Your task to perform on an android device: Search for the best selling phone on AliExpress Image 0: 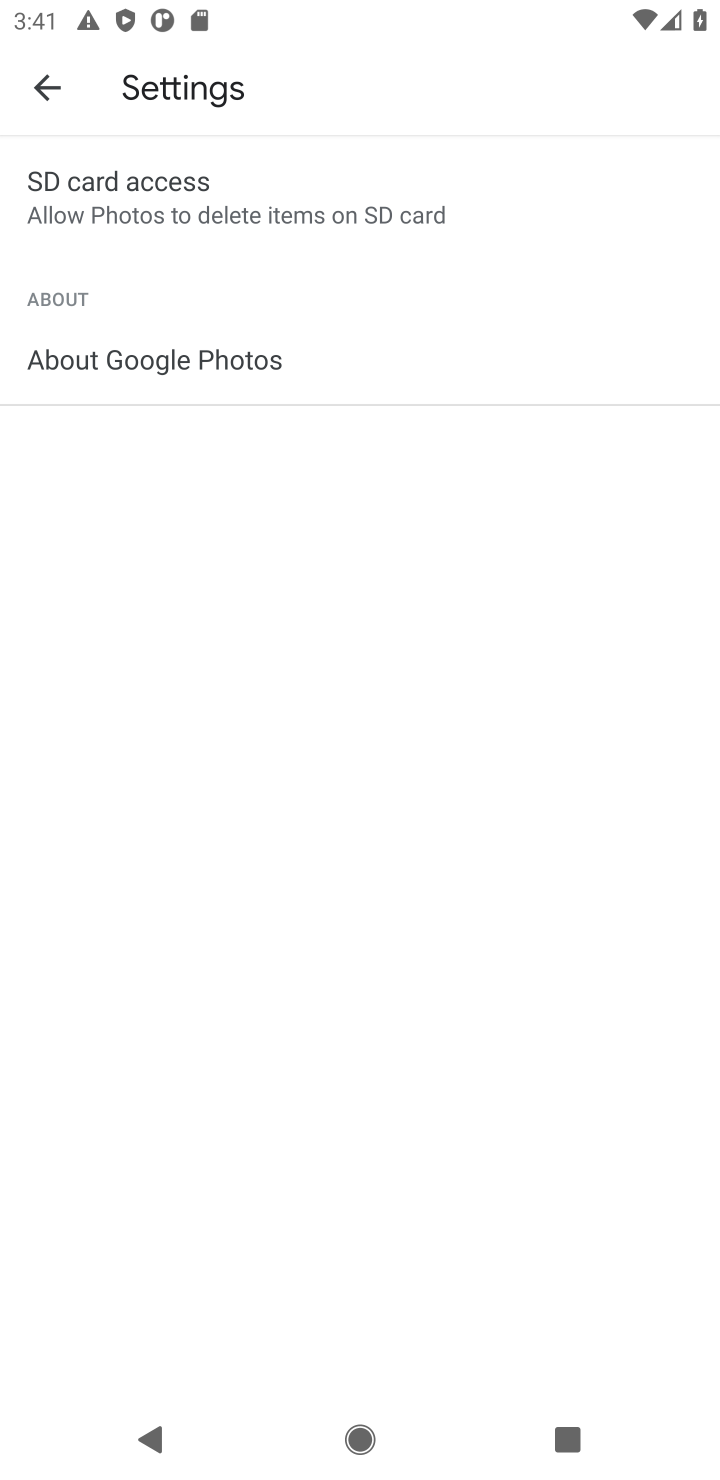
Step 0: press home button
Your task to perform on an android device: Search for the best selling phone on AliExpress Image 1: 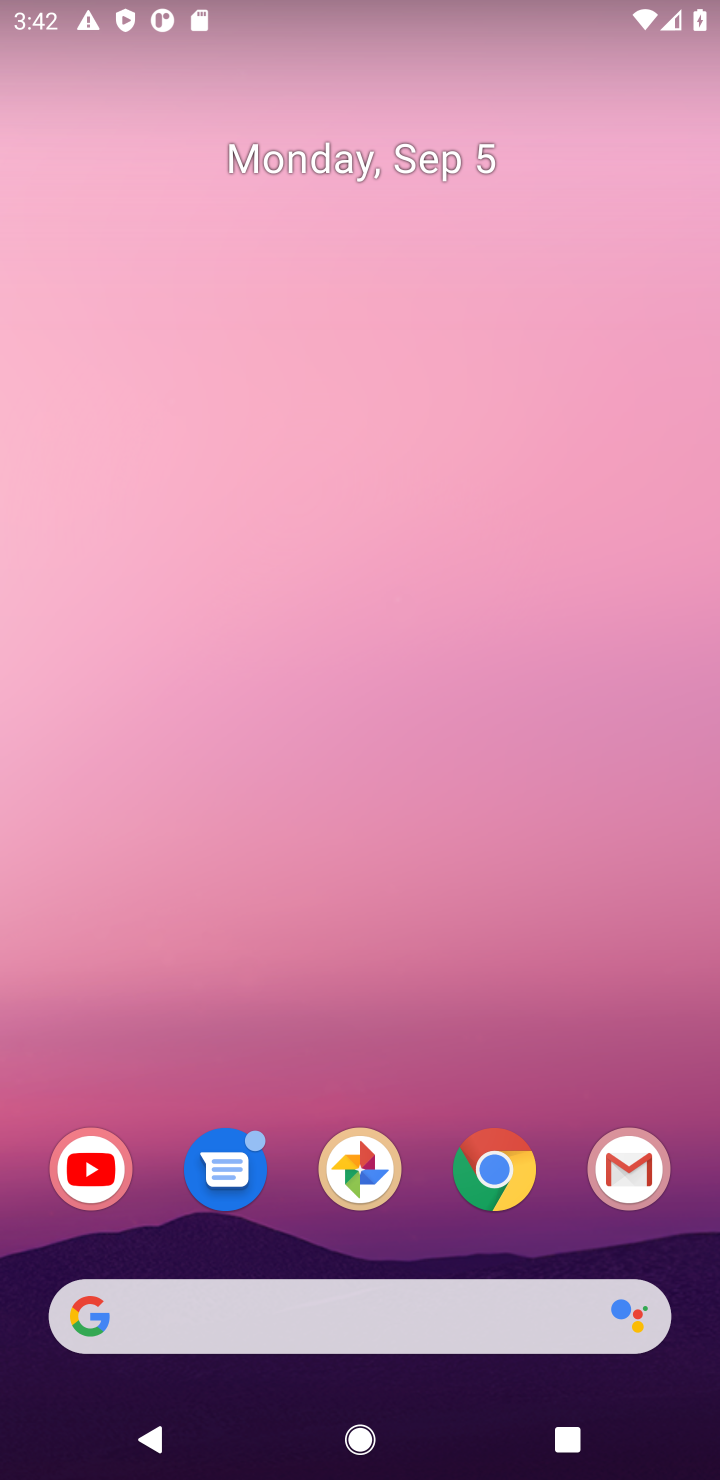
Step 1: click (497, 1170)
Your task to perform on an android device: Search for the best selling phone on AliExpress Image 2: 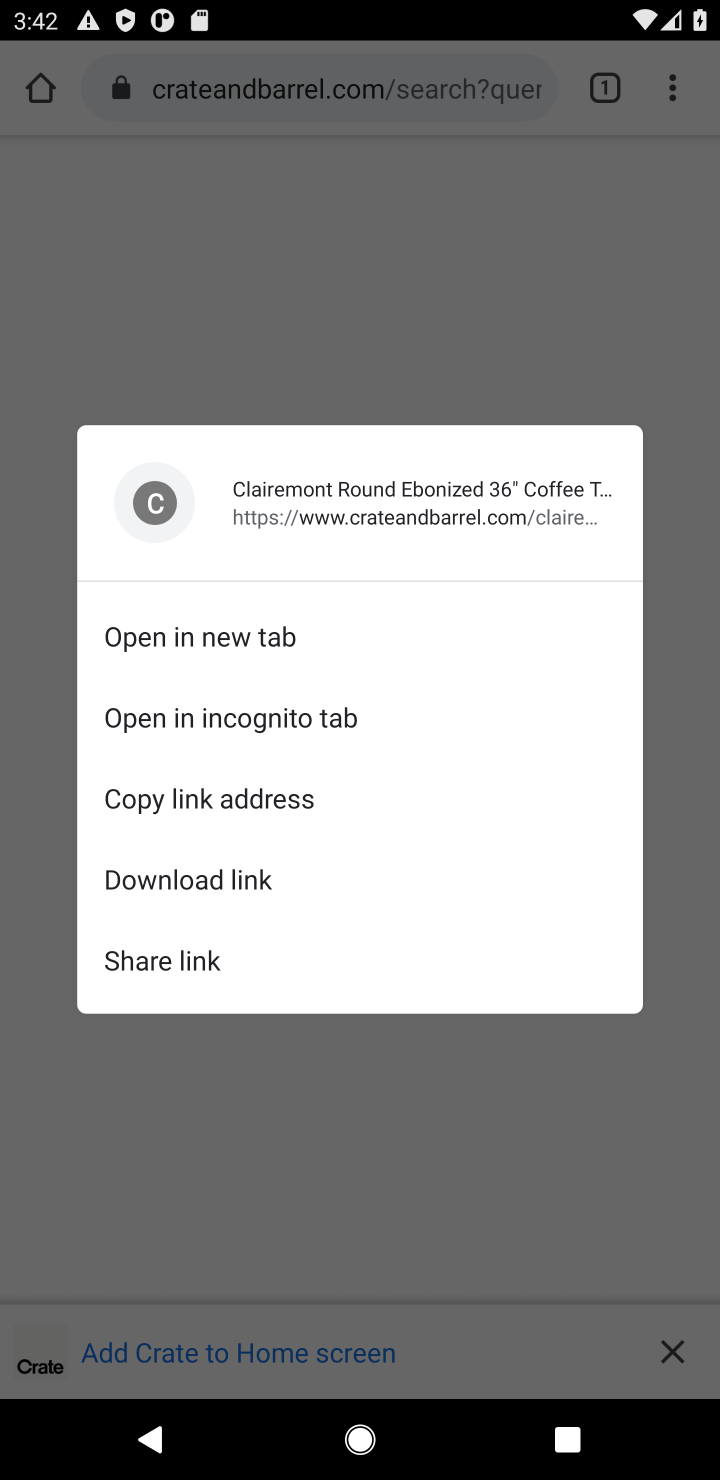
Step 2: click (272, 97)
Your task to perform on an android device: Search for the best selling phone on AliExpress Image 3: 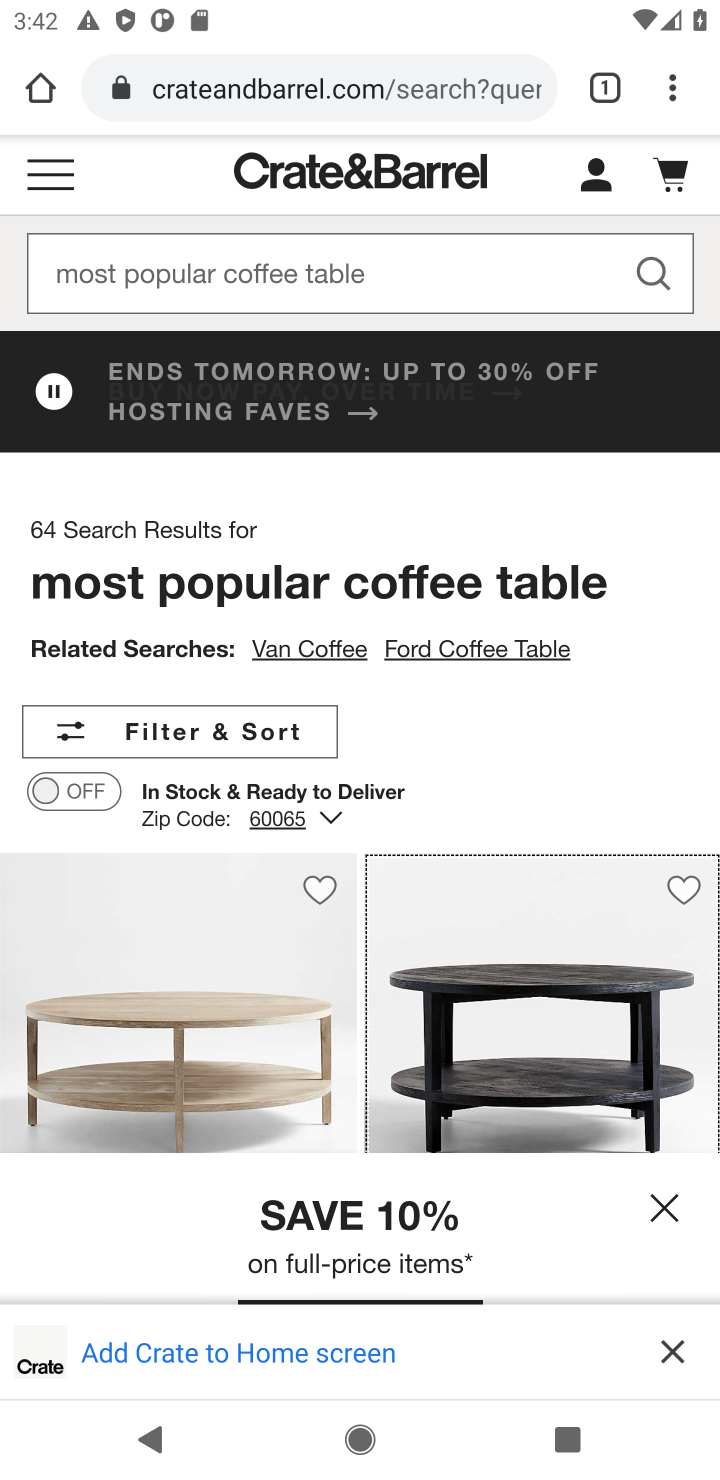
Step 3: click (316, 86)
Your task to perform on an android device: Search for the best selling phone on AliExpress Image 4: 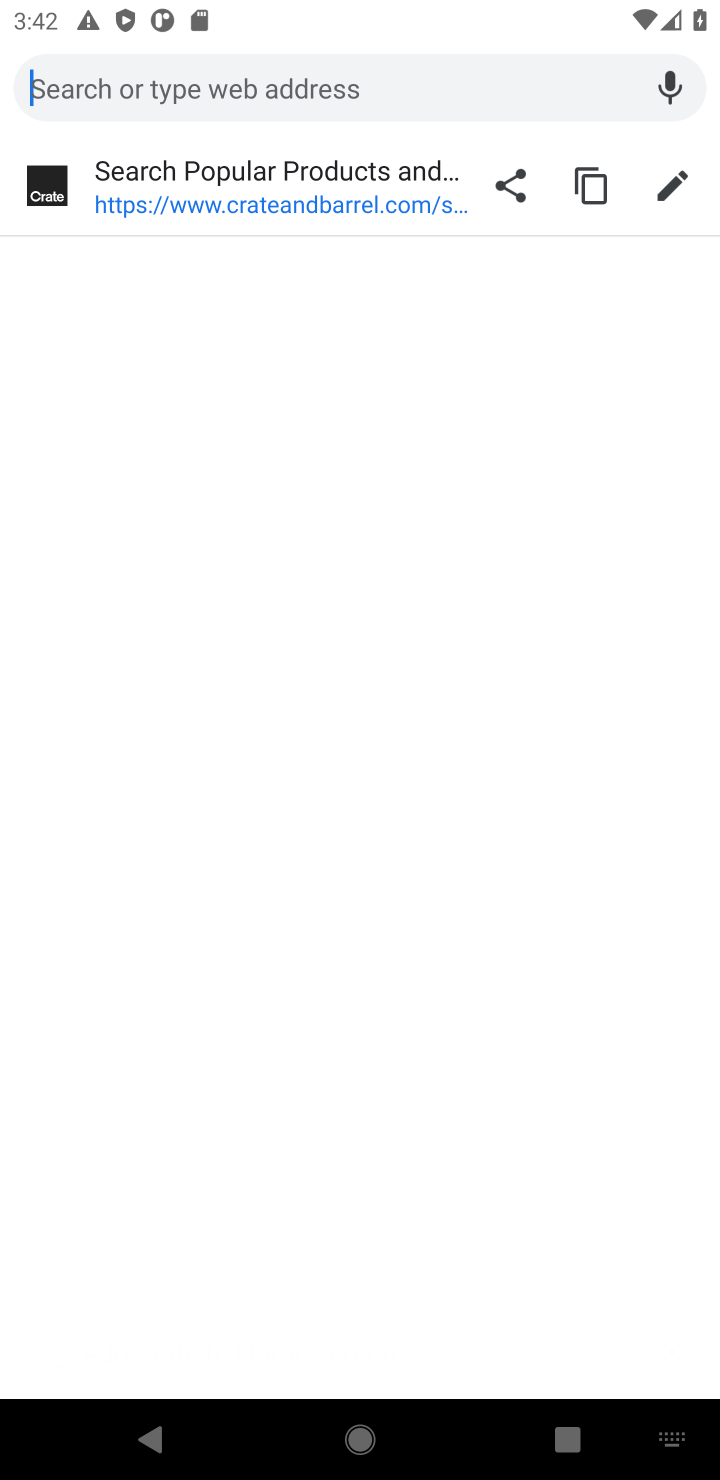
Step 4: type "AliExpress"
Your task to perform on an android device: Search for the best selling phone on AliExpress Image 5: 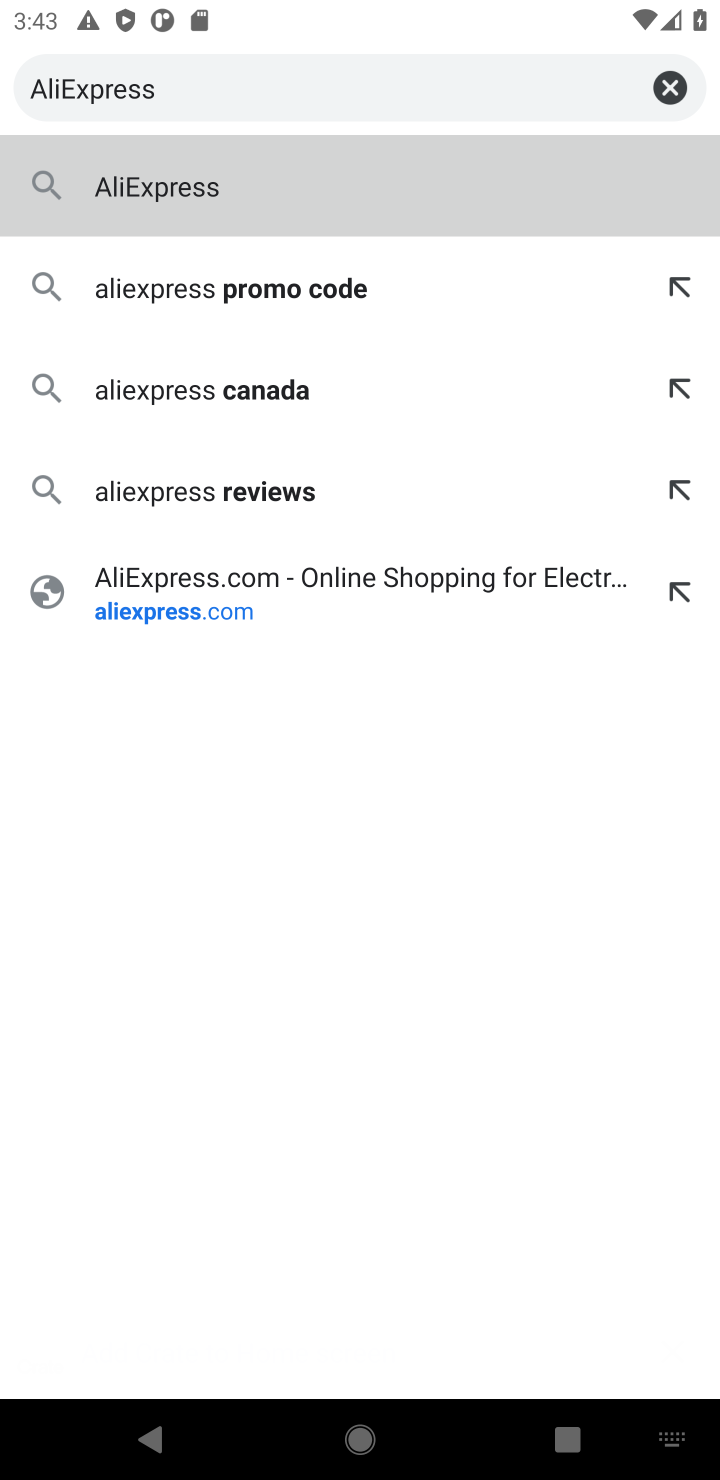
Step 5: click (158, 196)
Your task to perform on an android device: Search for the best selling phone on AliExpress Image 6: 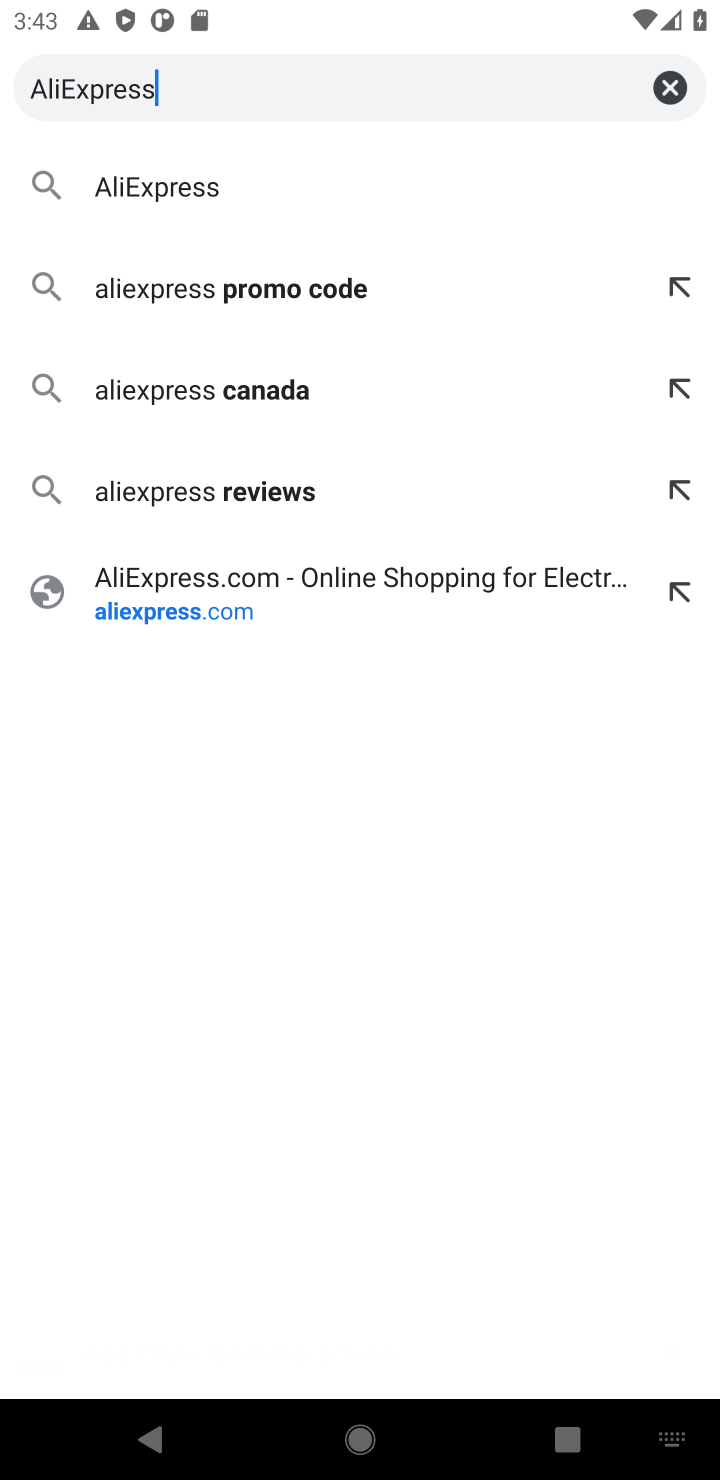
Step 6: click (159, 200)
Your task to perform on an android device: Search for the best selling phone on AliExpress Image 7: 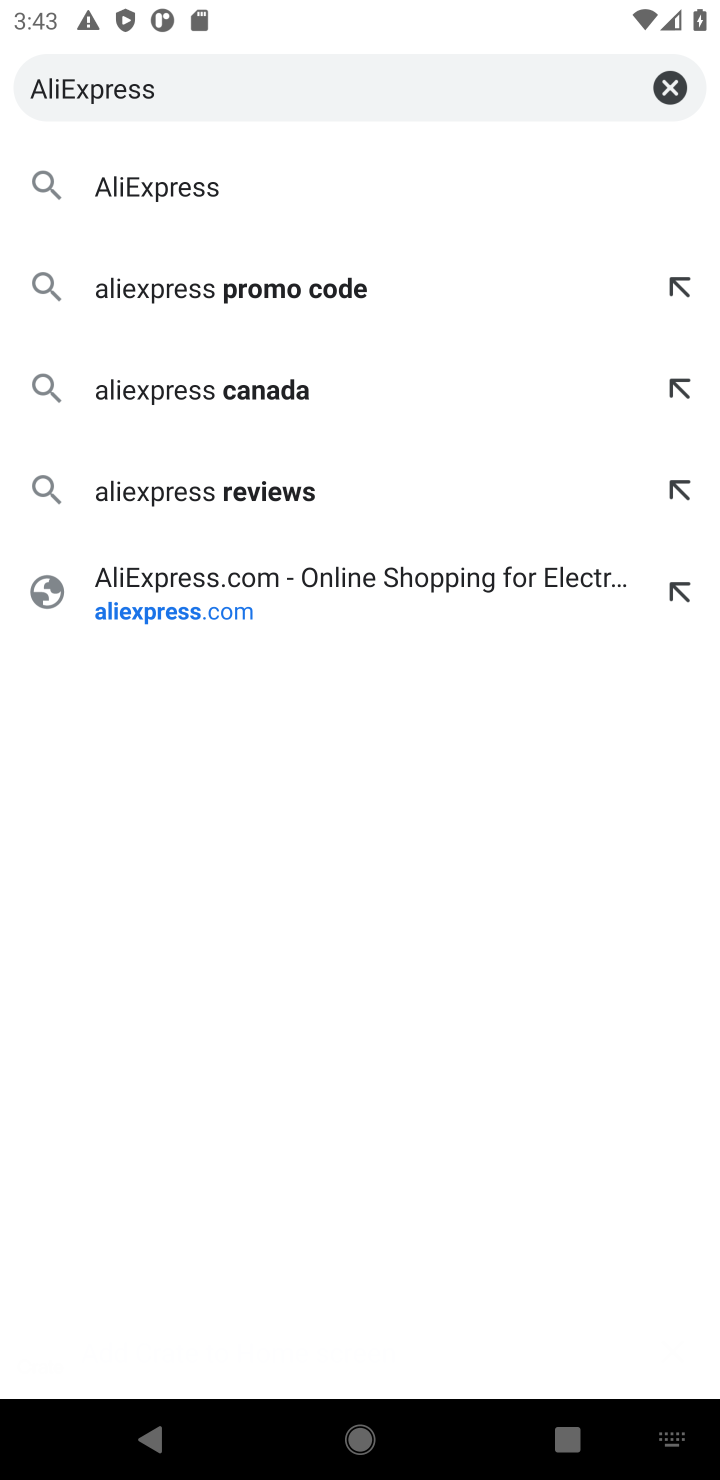
Step 7: click (147, 190)
Your task to perform on an android device: Search for the best selling phone on AliExpress Image 8: 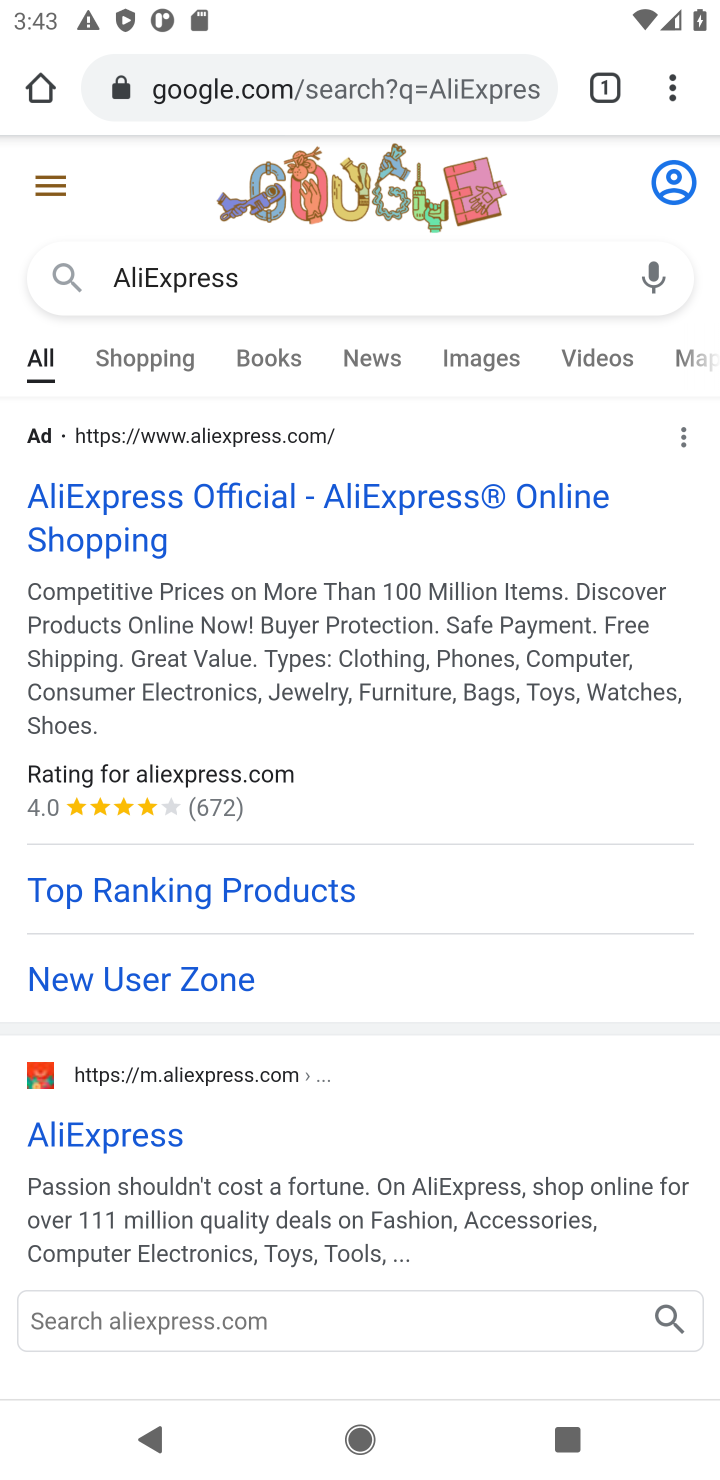
Step 8: click (116, 1142)
Your task to perform on an android device: Search for the best selling phone on AliExpress Image 9: 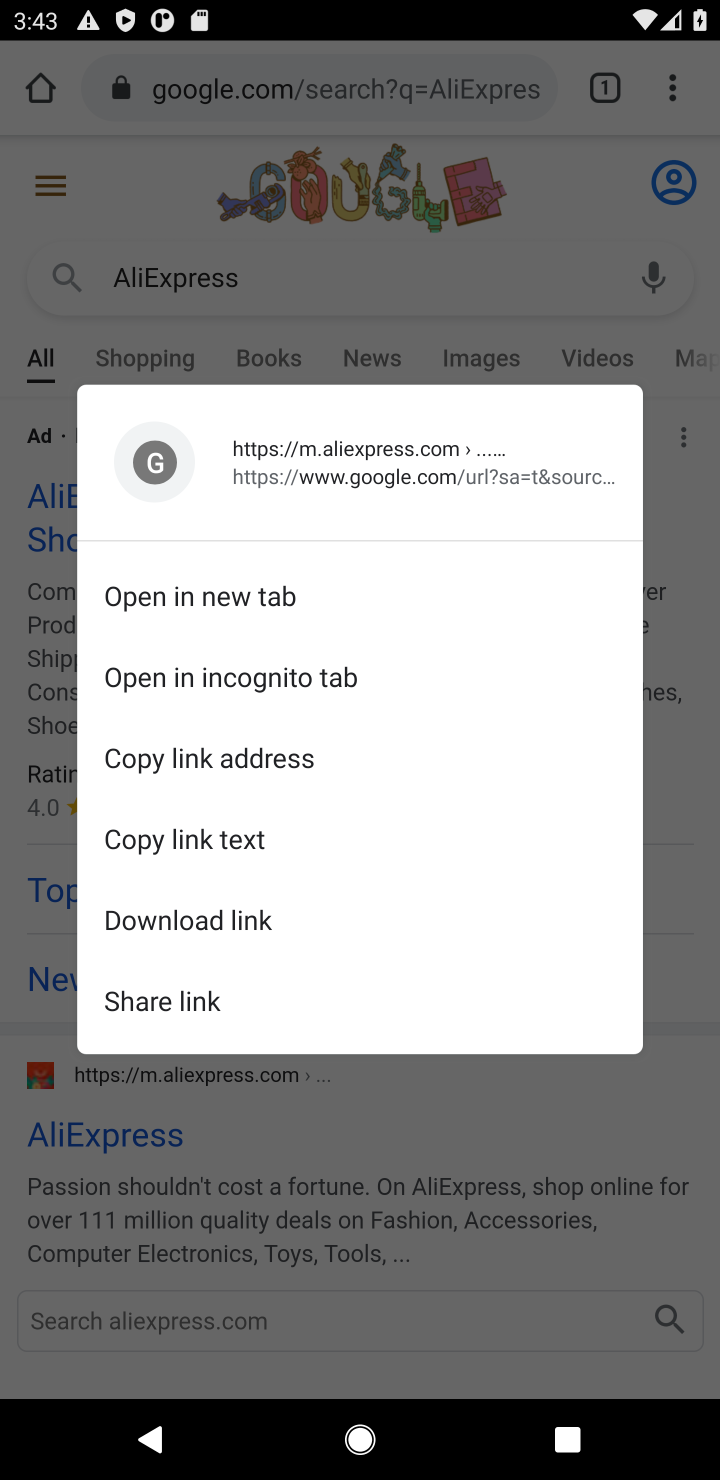
Step 9: click (114, 1154)
Your task to perform on an android device: Search for the best selling phone on AliExpress Image 10: 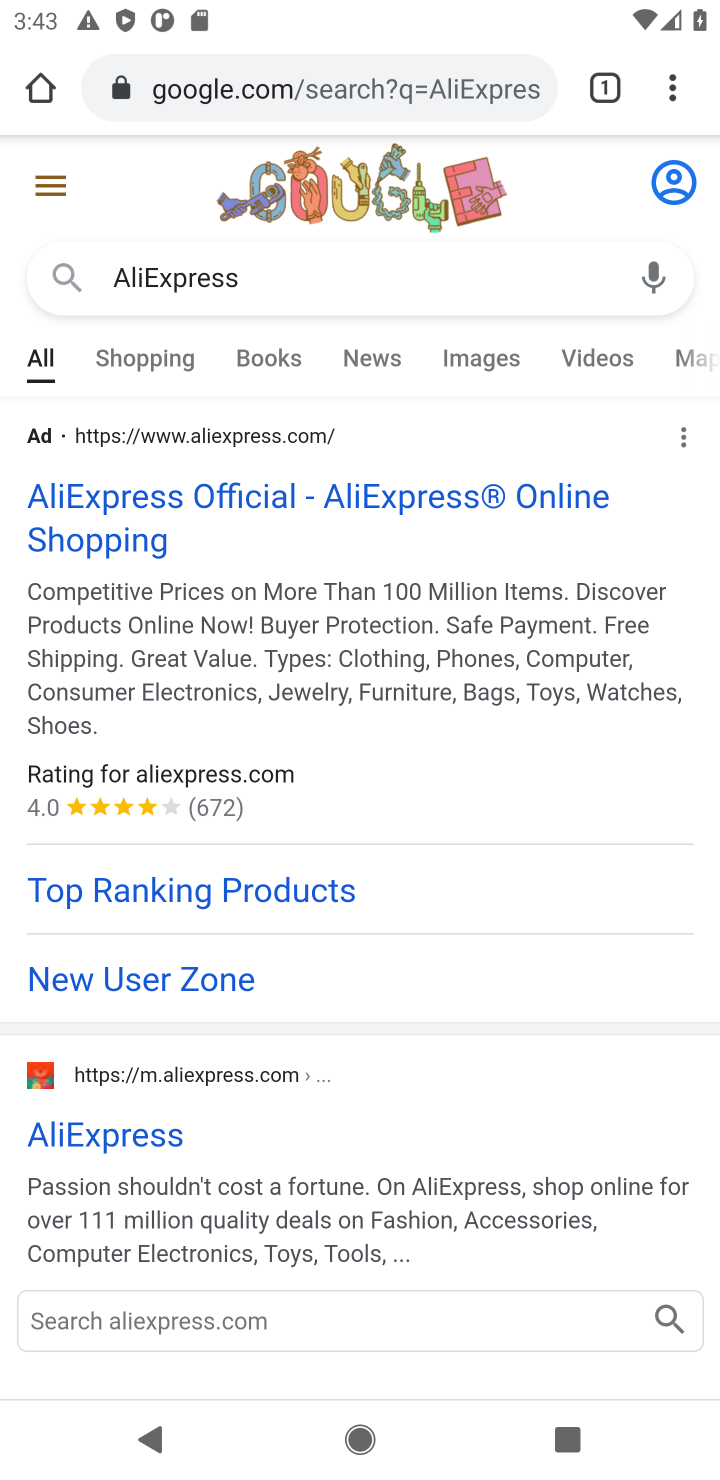
Step 10: click (151, 1139)
Your task to perform on an android device: Search for the best selling phone on AliExpress Image 11: 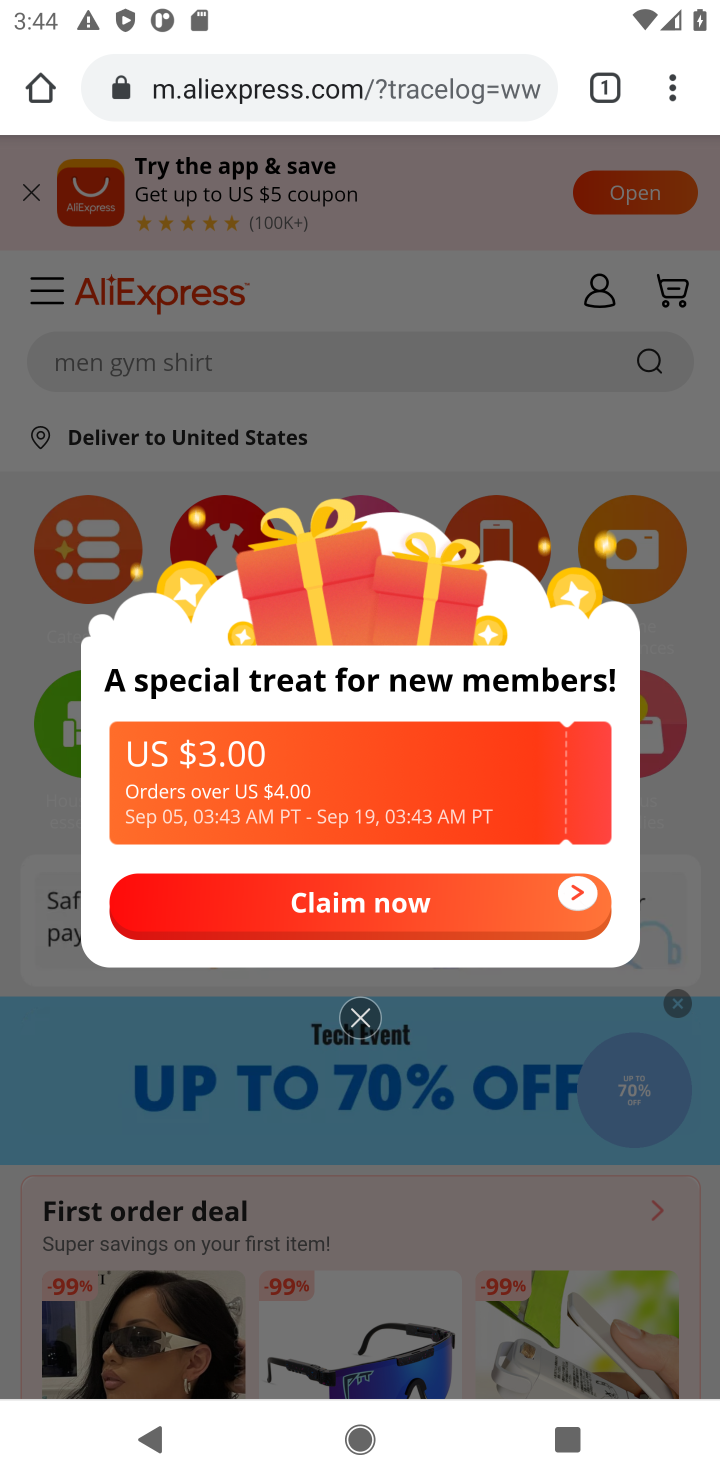
Step 11: click (352, 1030)
Your task to perform on an android device: Search for the best selling phone on AliExpress Image 12: 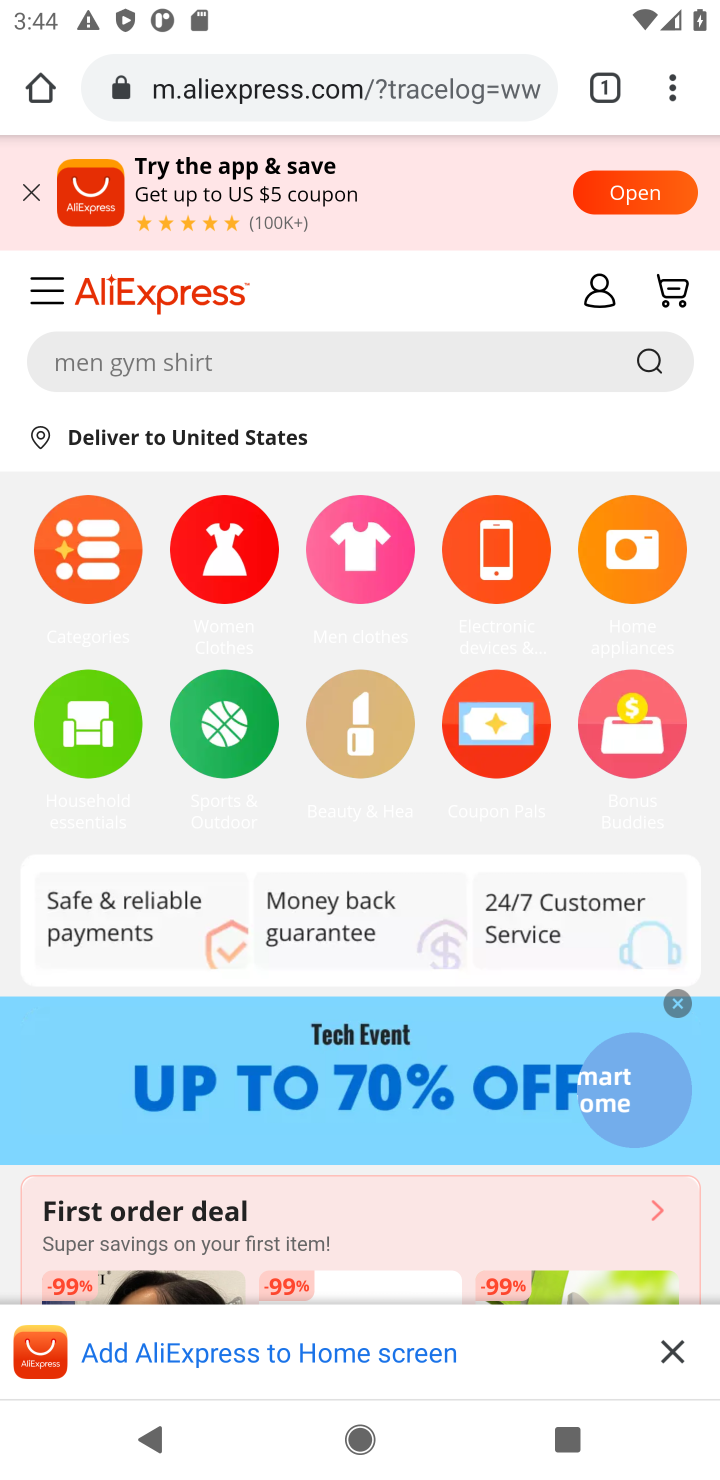
Step 12: click (392, 351)
Your task to perform on an android device: Search for the best selling phone on AliExpress Image 13: 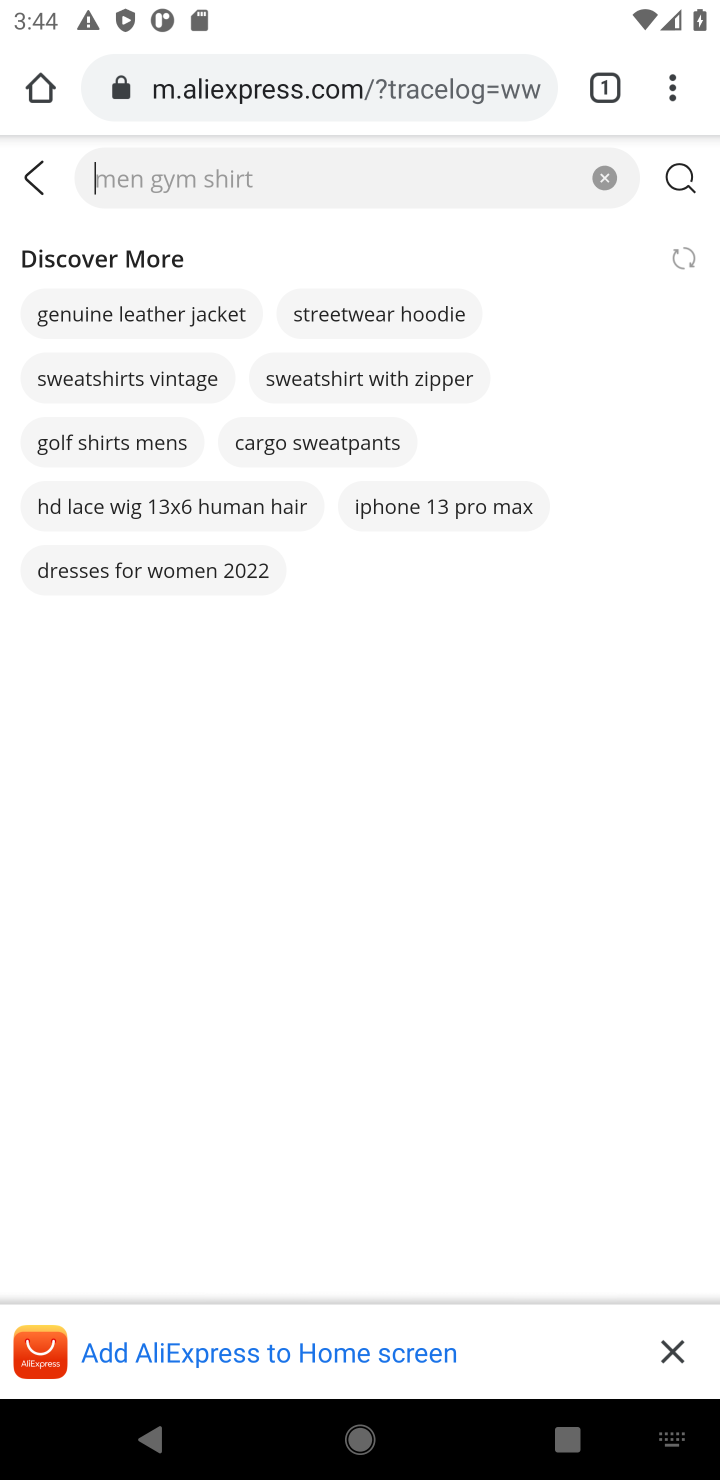
Step 13: type "best selling phone "
Your task to perform on an android device: Search for the best selling phone on AliExpress Image 14: 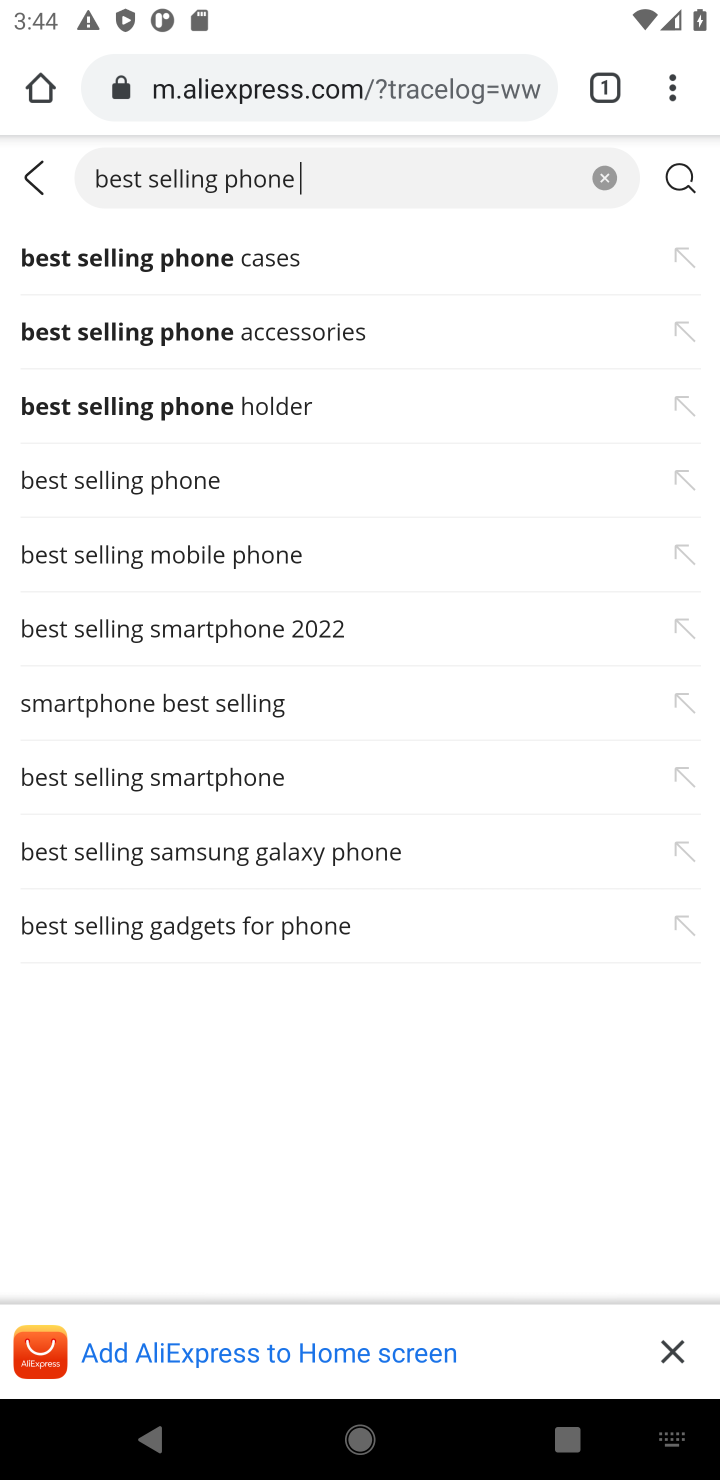
Step 14: click (174, 475)
Your task to perform on an android device: Search for the best selling phone on AliExpress Image 15: 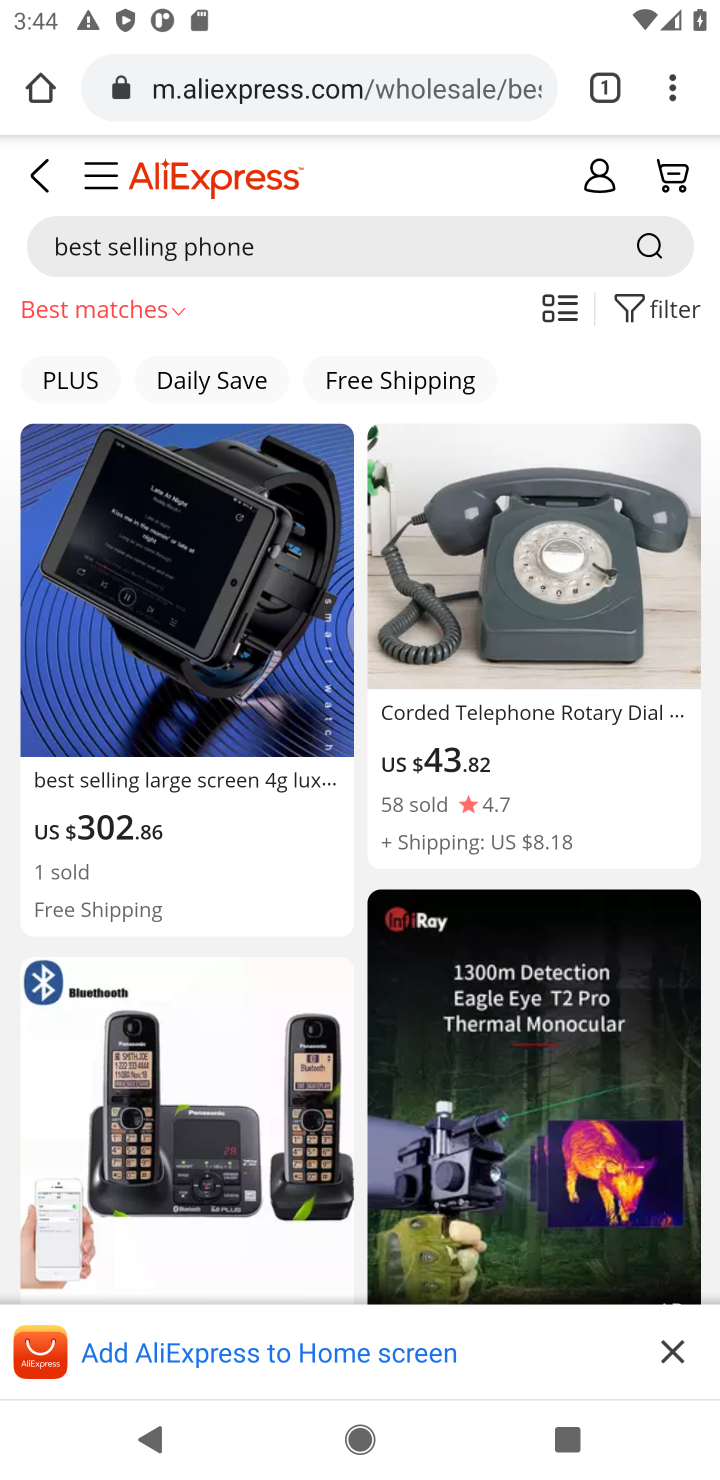
Step 15: task complete